Your task to perform on an android device: set the timer Image 0: 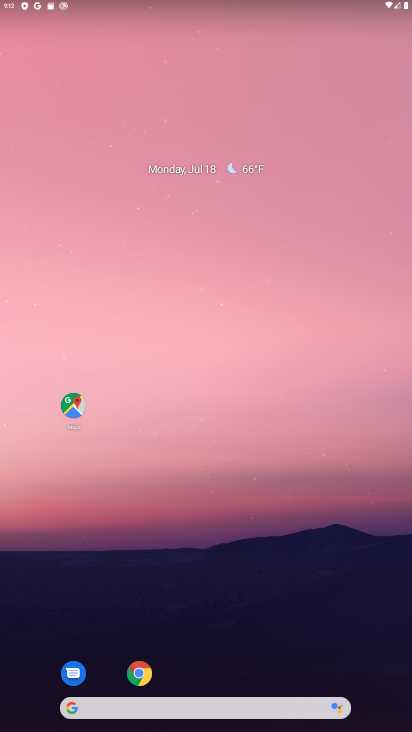
Step 0: drag from (254, 672) to (240, 98)
Your task to perform on an android device: set the timer Image 1: 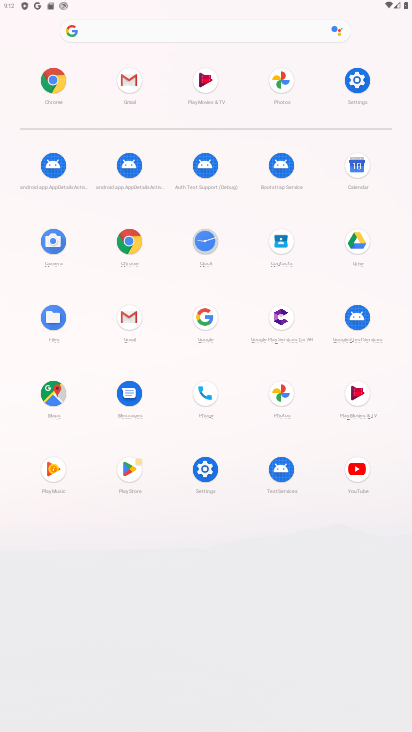
Step 1: click (204, 241)
Your task to perform on an android device: set the timer Image 2: 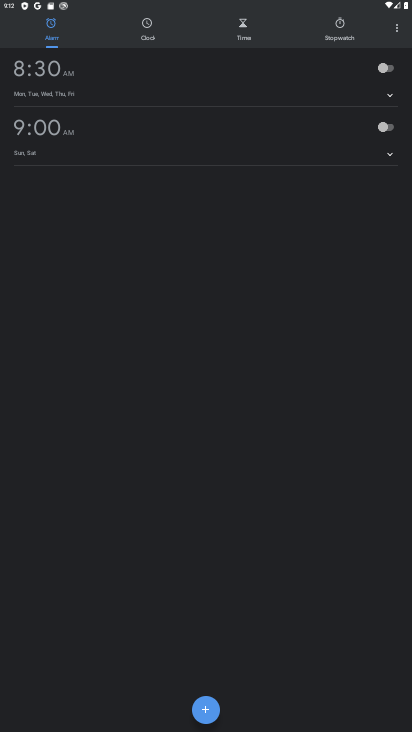
Step 2: click (243, 29)
Your task to perform on an android device: set the timer Image 3: 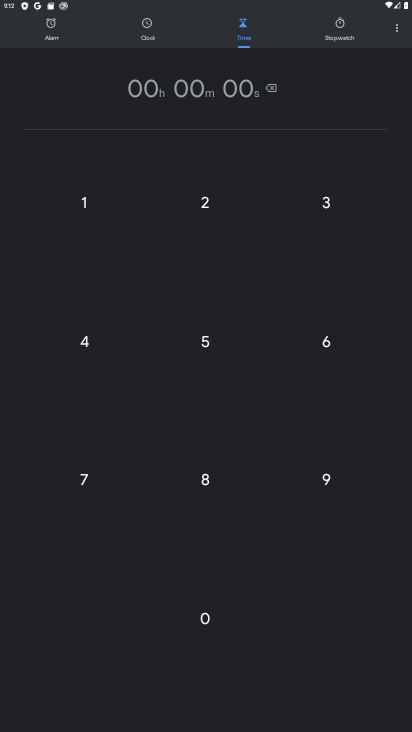
Step 3: click (204, 206)
Your task to perform on an android device: set the timer Image 4: 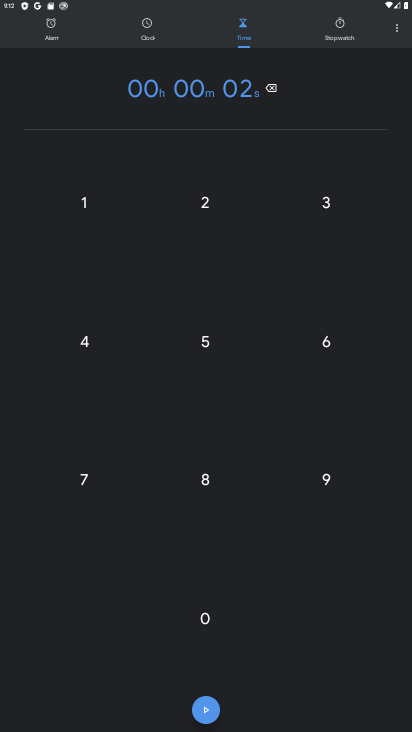
Step 4: click (205, 206)
Your task to perform on an android device: set the timer Image 5: 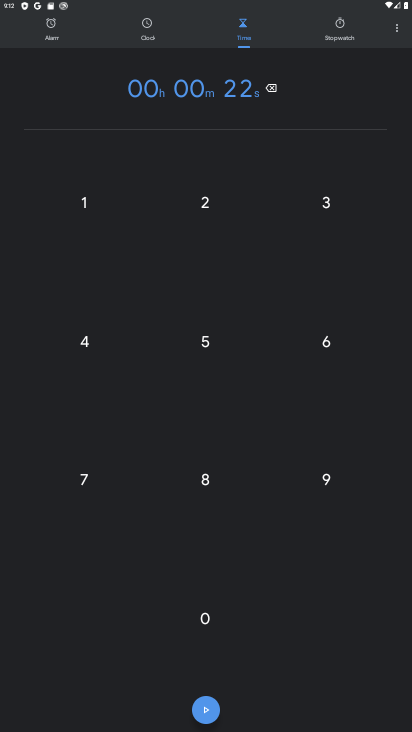
Step 5: task complete